Your task to perform on an android device: turn off smart reply in the gmail app Image 0: 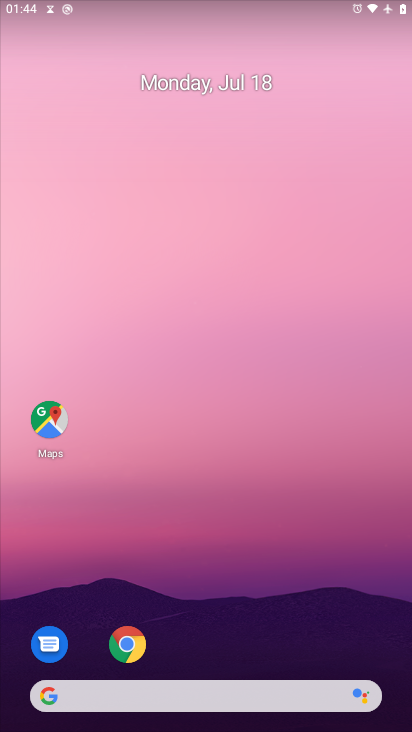
Step 0: press home button
Your task to perform on an android device: turn off smart reply in the gmail app Image 1: 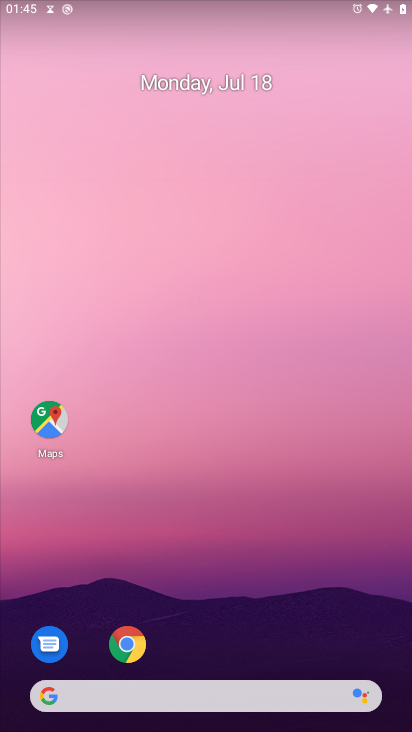
Step 1: drag from (224, 635) to (307, 9)
Your task to perform on an android device: turn off smart reply in the gmail app Image 2: 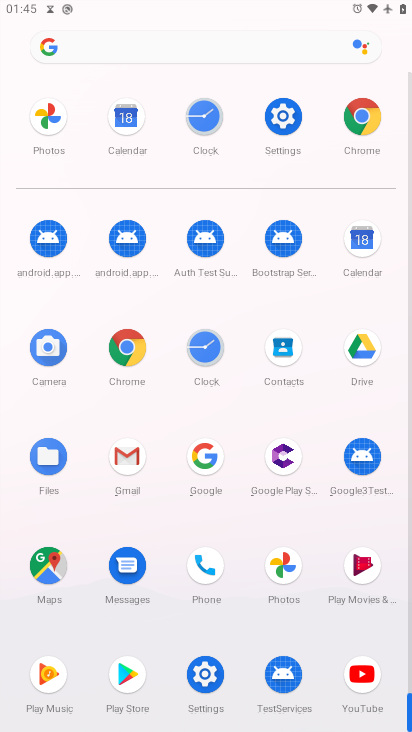
Step 2: click (118, 455)
Your task to perform on an android device: turn off smart reply in the gmail app Image 3: 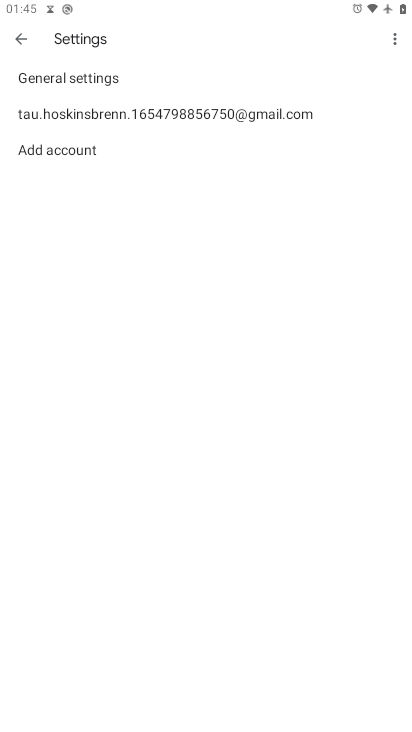
Step 3: click (90, 116)
Your task to perform on an android device: turn off smart reply in the gmail app Image 4: 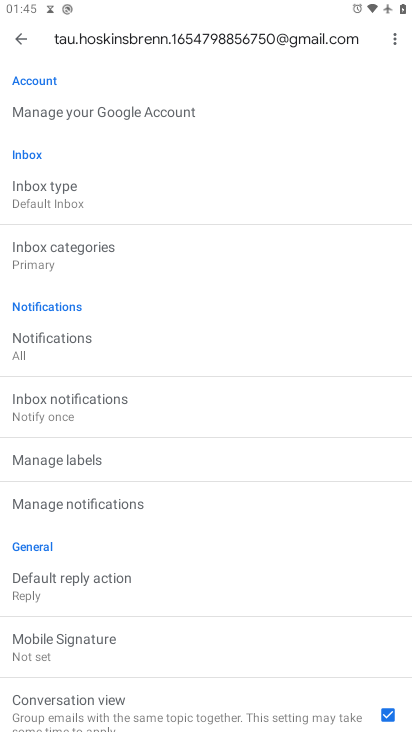
Step 4: task complete